Your task to perform on an android device: open a new tab in the chrome app Image 0: 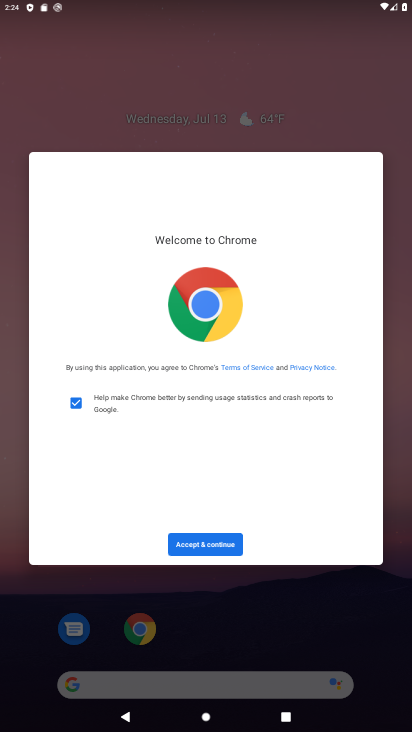
Step 0: click (219, 542)
Your task to perform on an android device: open a new tab in the chrome app Image 1: 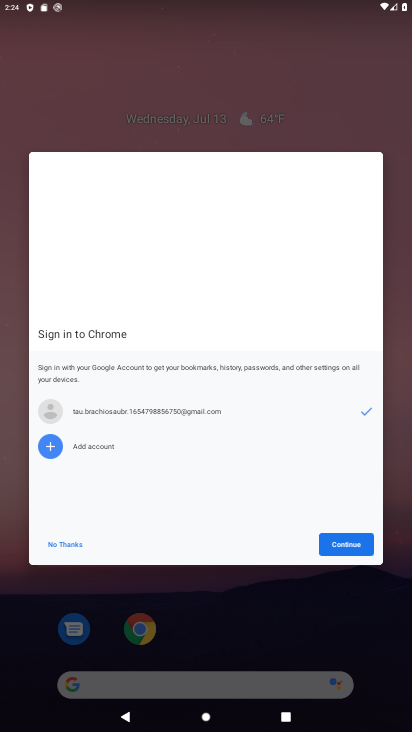
Step 1: click (60, 544)
Your task to perform on an android device: open a new tab in the chrome app Image 2: 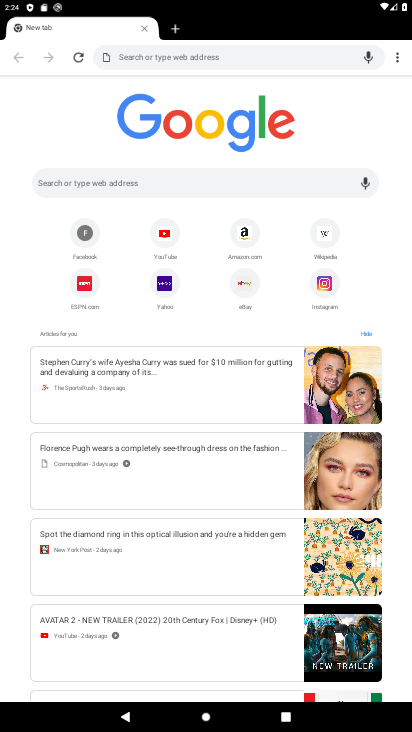
Step 2: task complete